Your task to perform on an android device: What is the recent news? Image 0: 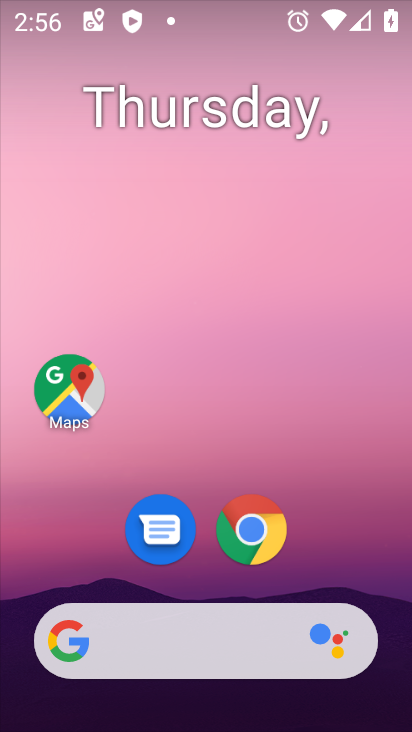
Step 0: click (214, 660)
Your task to perform on an android device: What is the recent news? Image 1: 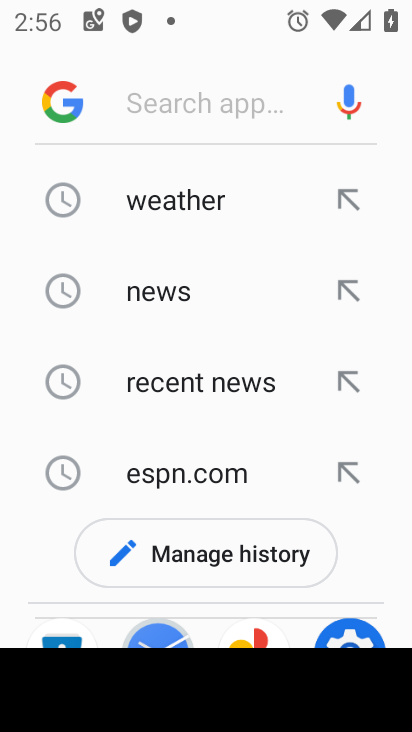
Step 1: click (195, 384)
Your task to perform on an android device: What is the recent news? Image 2: 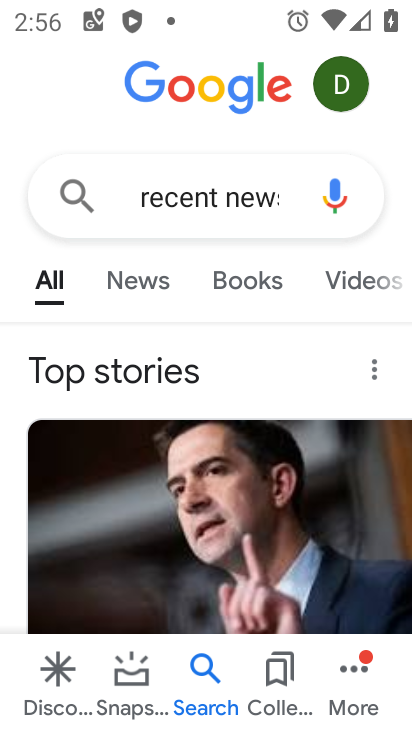
Step 2: task complete